Your task to perform on an android device: What's the weather today? Image 0: 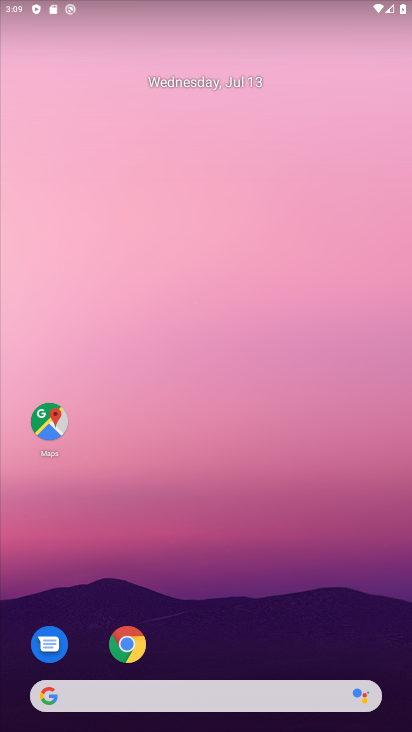
Step 0: click (108, 692)
Your task to perform on an android device: What's the weather today? Image 1: 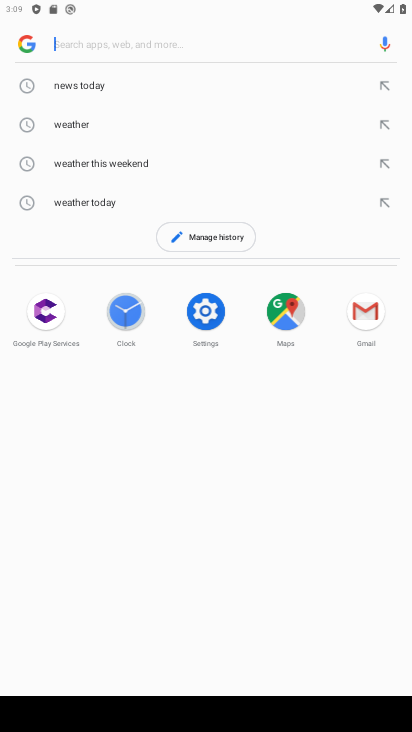
Step 1: click (76, 119)
Your task to perform on an android device: What's the weather today? Image 2: 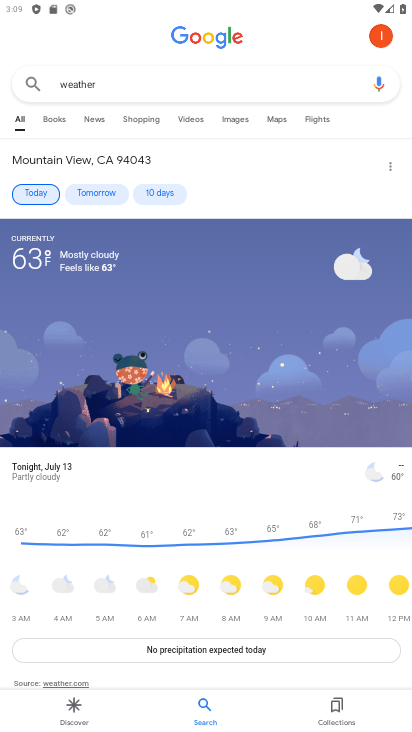
Step 2: task complete